Your task to perform on an android device: find which apps use the phone's location Image 0: 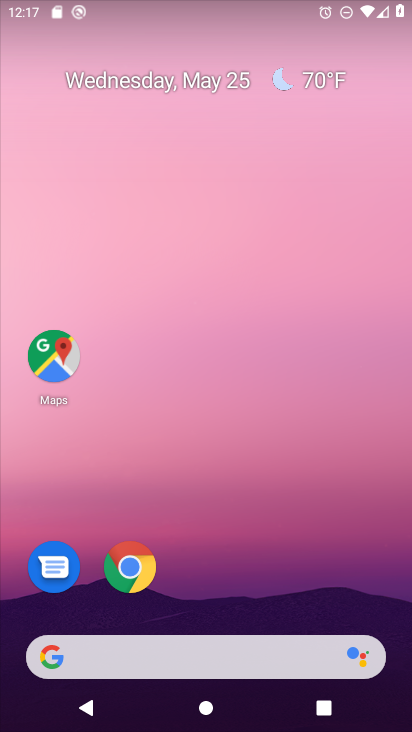
Step 0: drag from (396, 702) to (381, 289)
Your task to perform on an android device: find which apps use the phone's location Image 1: 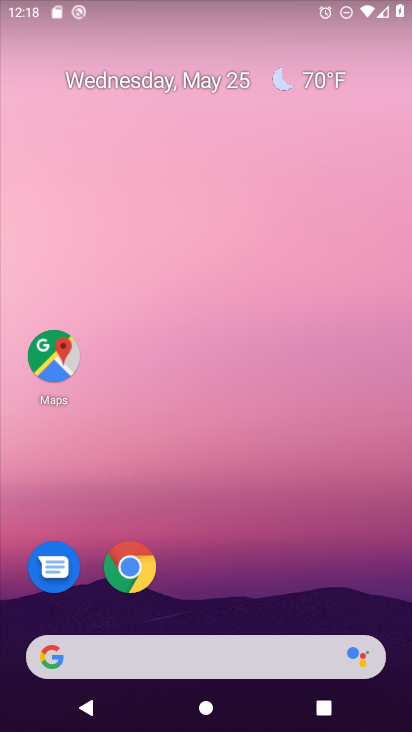
Step 1: drag from (398, 689) to (346, 293)
Your task to perform on an android device: find which apps use the phone's location Image 2: 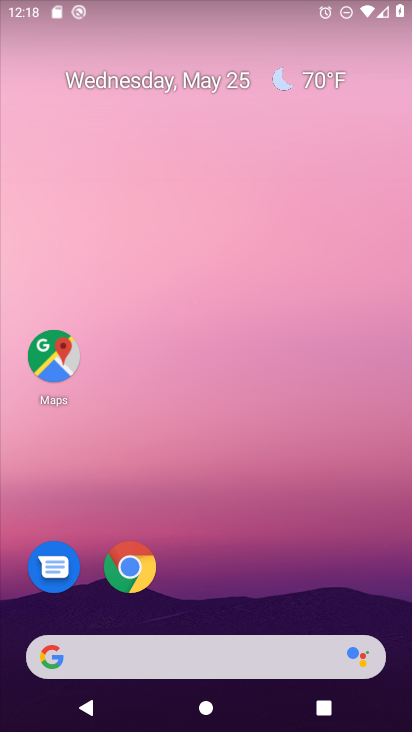
Step 2: drag from (393, 713) to (358, 36)
Your task to perform on an android device: find which apps use the phone's location Image 3: 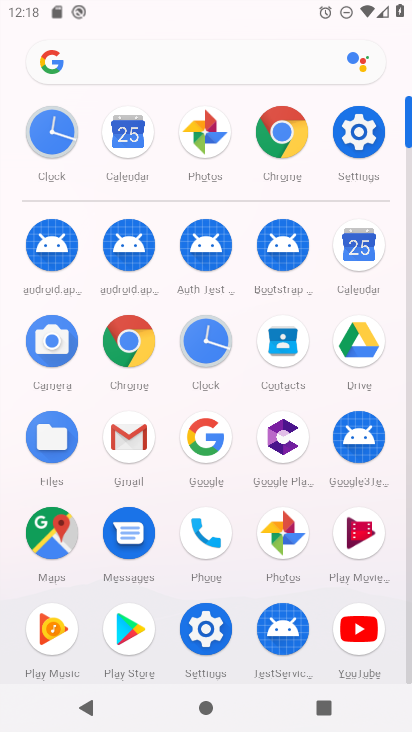
Step 3: click (199, 637)
Your task to perform on an android device: find which apps use the phone's location Image 4: 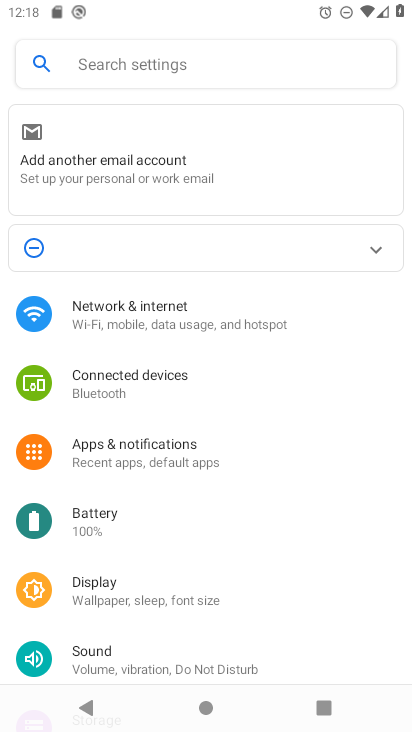
Step 4: drag from (297, 631) to (289, 265)
Your task to perform on an android device: find which apps use the phone's location Image 5: 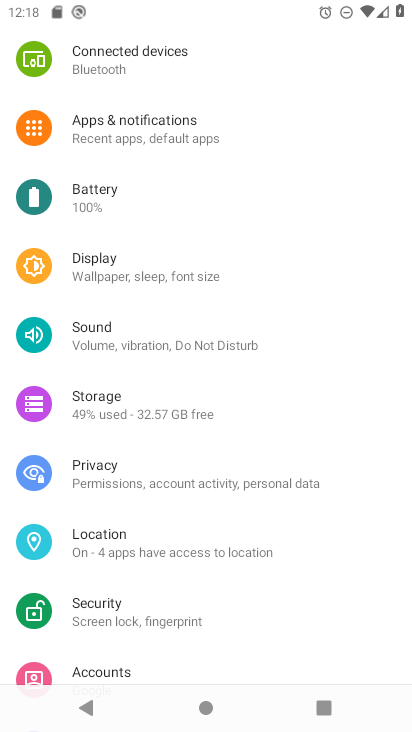
Step 5: click (90, 547)
Your task to perform on an android device: find which apps use the phone's location Image 6: 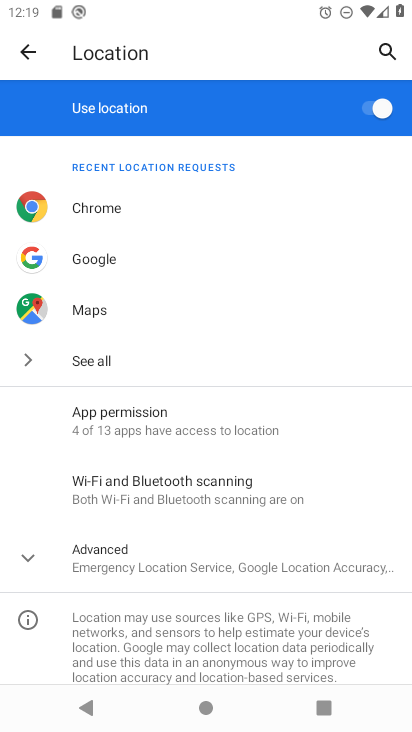
Step 6: task complete